Your task to perform on an android device: Open maps Image 0: 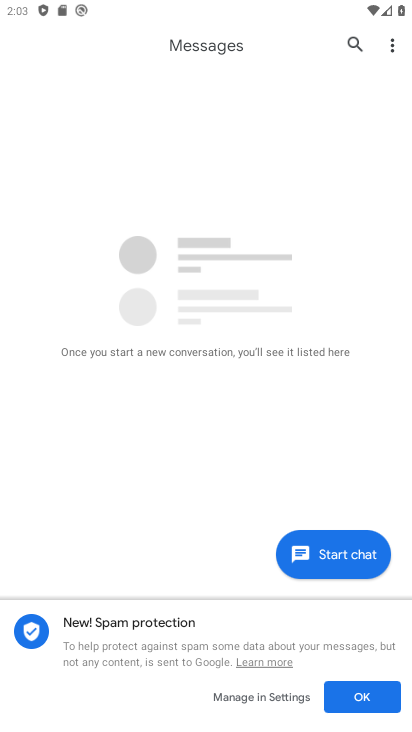
Step 0: drag from (268, 643) to (149, 89)
Your task to perform on an android device: Open maps Image 1: 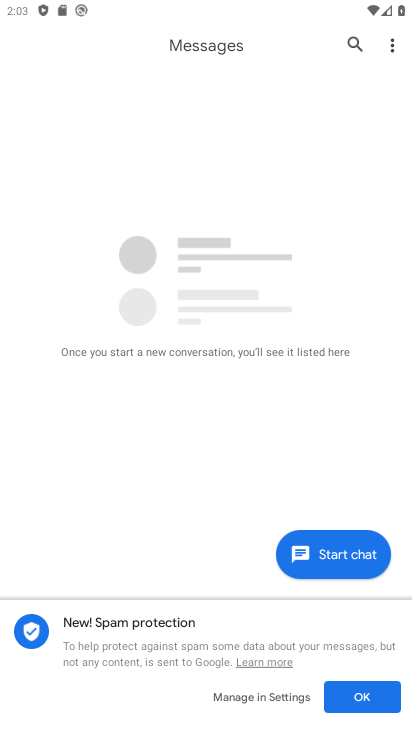
Step 1: press back button
Your task to perform on an android device: Open maps Image 2: 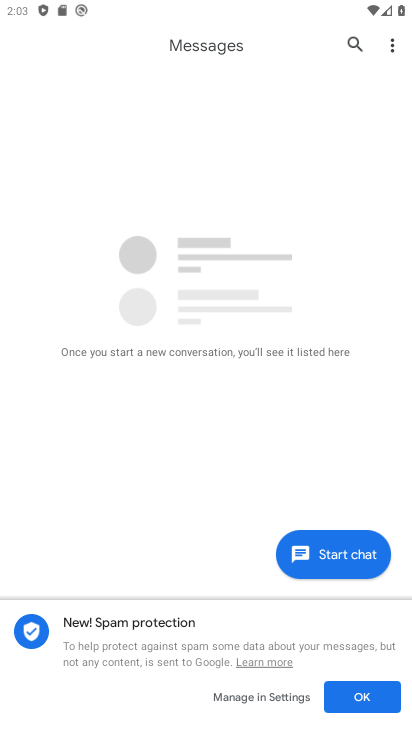
Step 2: press back button
Your task to perform on an android device: Open maps Image 3: 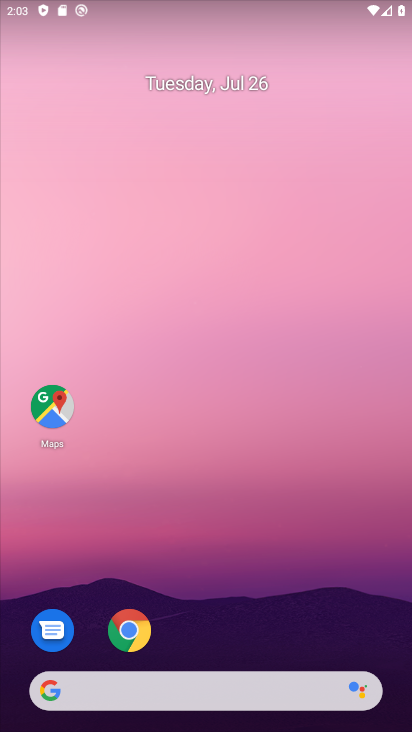
Step 3: drag from (214, 366) to (174, 108)
Your task to perform on an android device: Open maps Image 4: 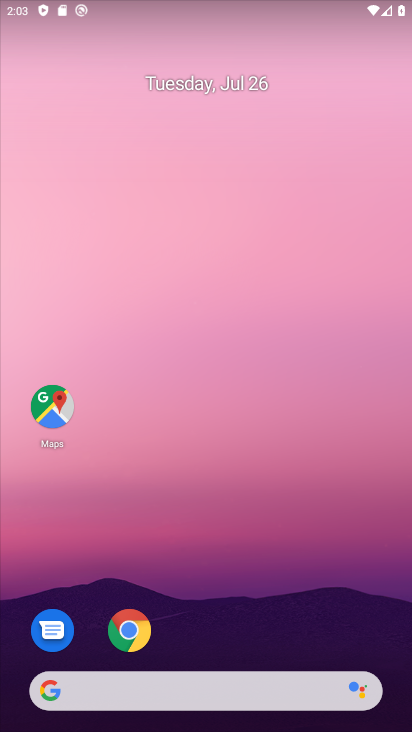
Step 4: drag from (198, 530) to (125, 117)
Your task to perform on an android device: Open maps Image 5: 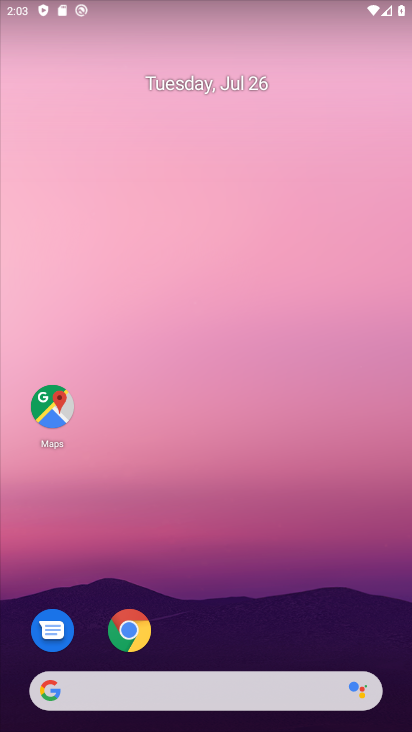
Step 5: drag from (185, 449) to (118, 33)
Your task to perform on an android device: Open maps Image 6: 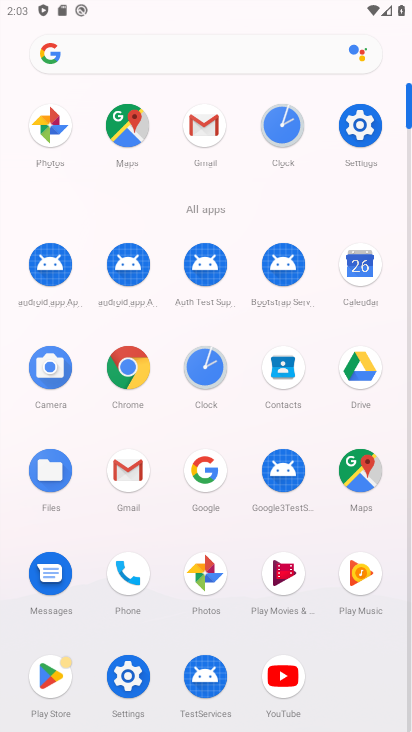
Step 6: drag from (159, 513) to (255, 40)
Your task to perform on an android device: Open maps Image 7: 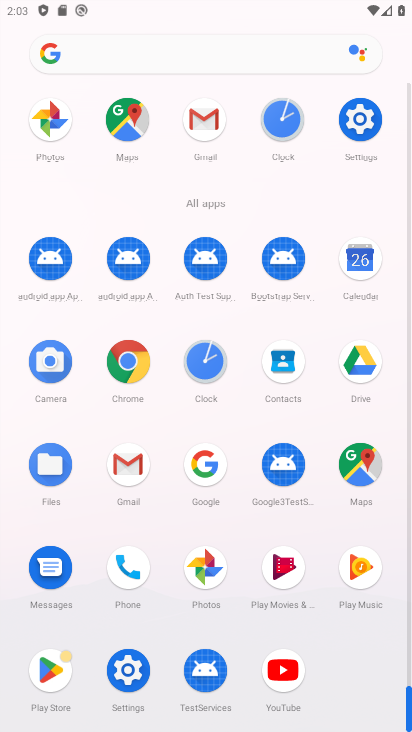
Step 7: click (354, 477)
Your task to perform on an android device: Open maps Image 8: 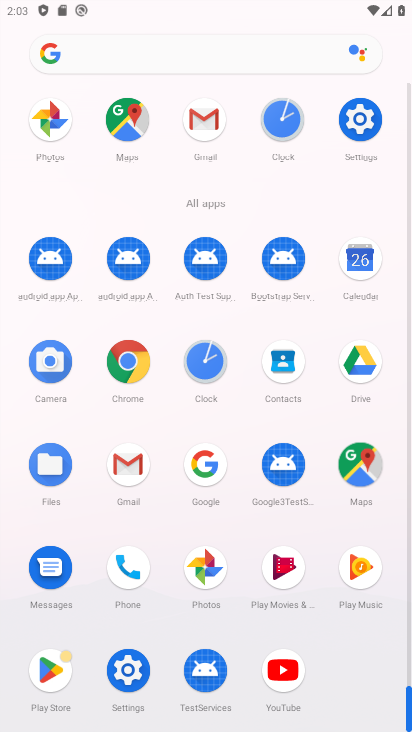
Step 8: click (362, 471)
Your task to perform on an android device: Open maps Image 9: 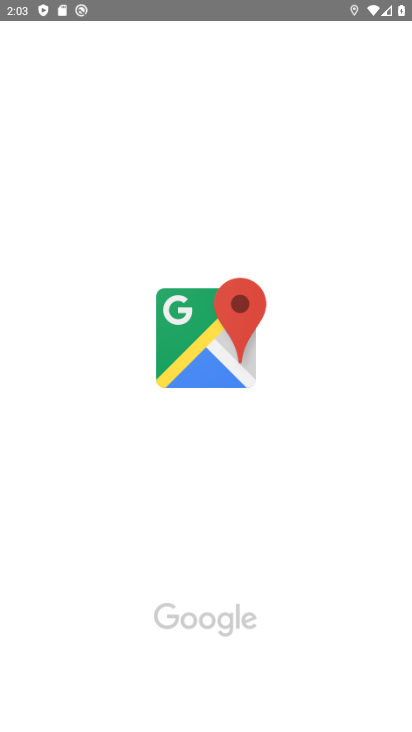
Step 9: task complete